Your task to perform on an android device: Show me productivity apps on the Play Store Image 0: 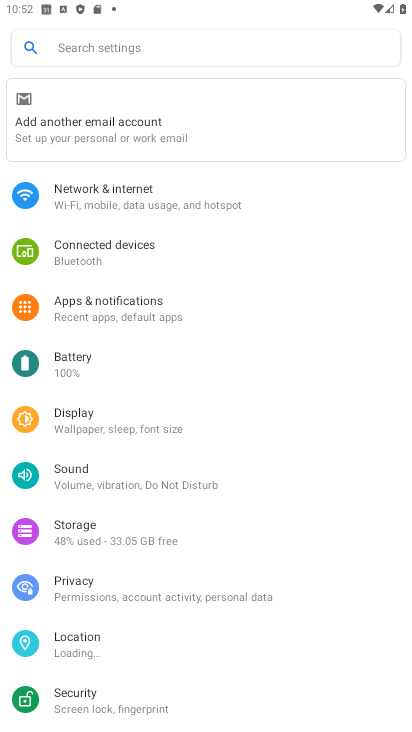
Step 0: press home button
Your task to perform on an android device: Show me productivity apps on the Play Store Image 1: 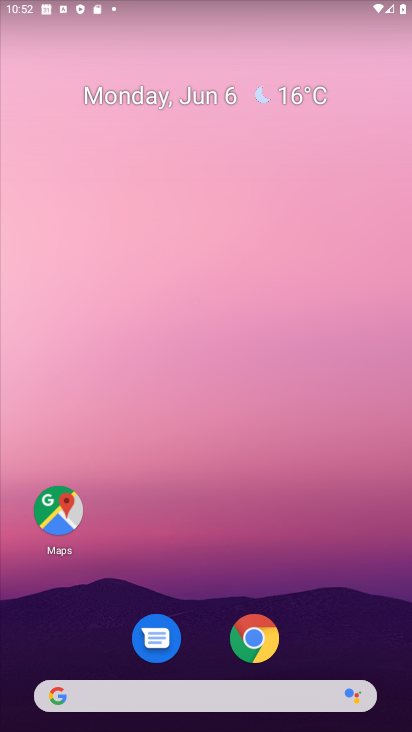
Step 1: drag from (264, 692) to (233, 184)
Your task to perform on an android device: Show me productivity apps on the Play Store Image 2: 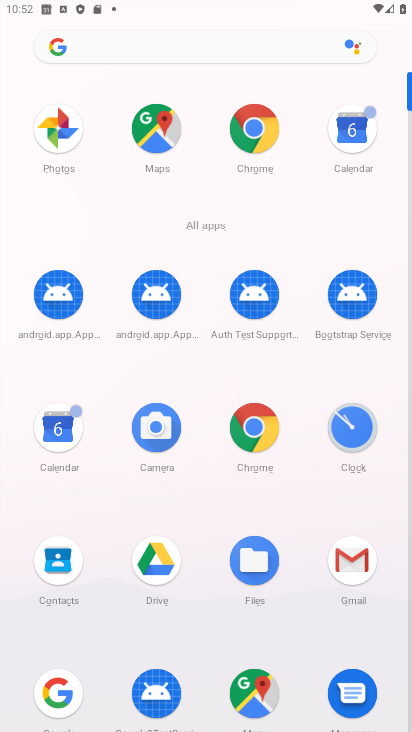
Step 2: drag from (205, 516) to (210, 381)
Your task to perform on an android device: Show me productivity apps on the Play Store Image 3: 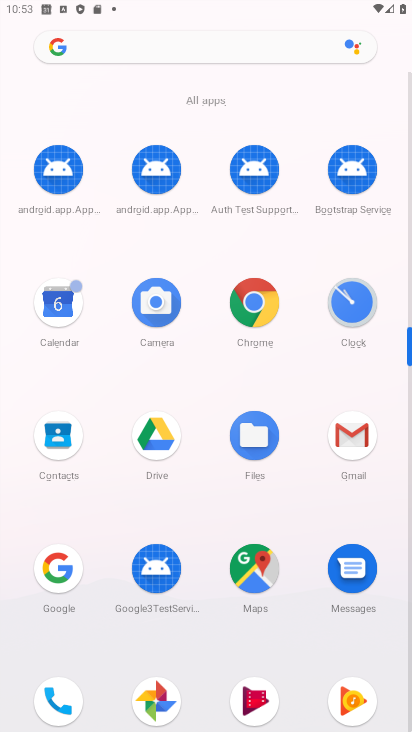
Step 3: drag from (124, 531) to (161, 349)
Your task to perform on an android device: Show me productivity apps on the Play Store Image 4: 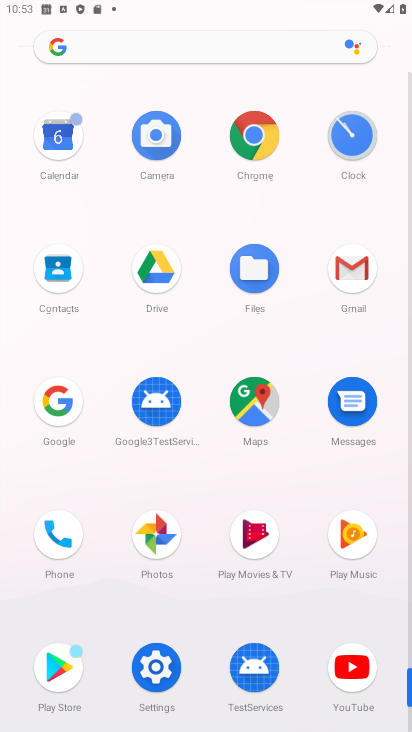
Step 4: click (52, 668)
Your task to perform on an android device: Show me productivity apps on the Play Store Image 5: 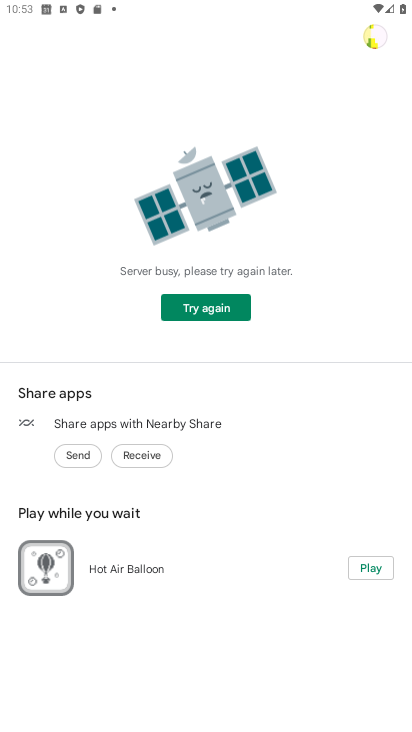
Step 5: drag from (298, 103) to (325, 367)
Your task to perform on an android device: Show me productivity apps on the Play Store Image 6: 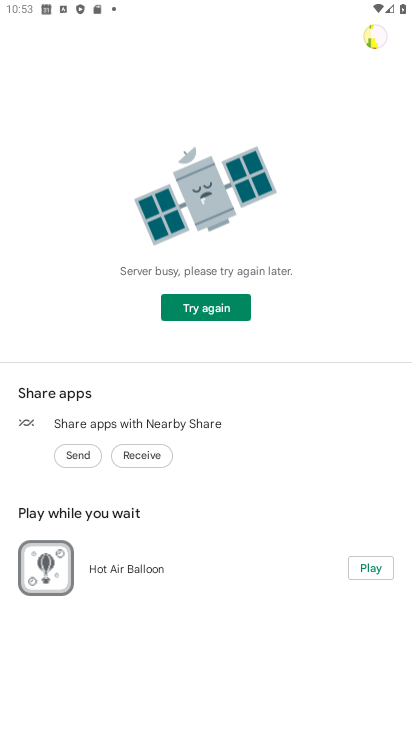
Step 6: click (222, 39)
Your task to perform on an android device: Show me productivity apps on the Play Store Image 7: 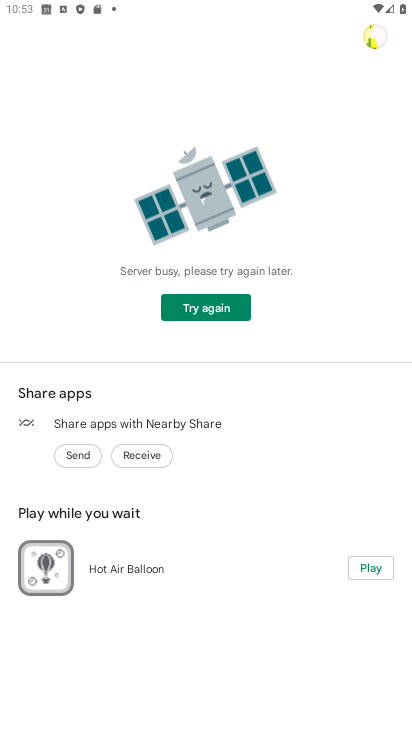
Step 7: click (222, 309)
Your task to perform on an android device: Show me productivity apps on the Play Store Image 8: 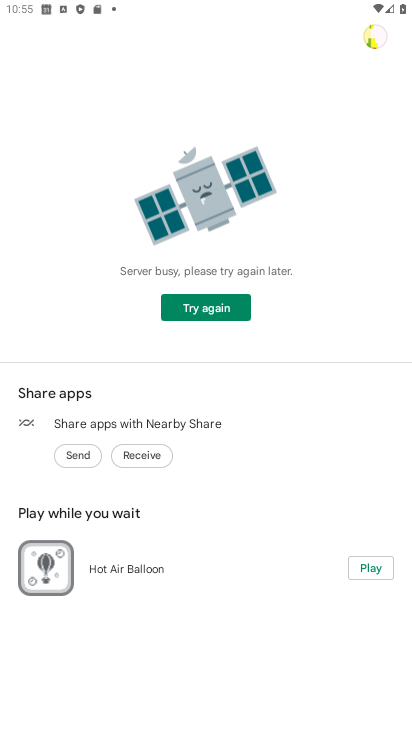
Step 8: task complete